Your task to perform on an android device: read, delete, or share a saved page in the chrome app Image 0: 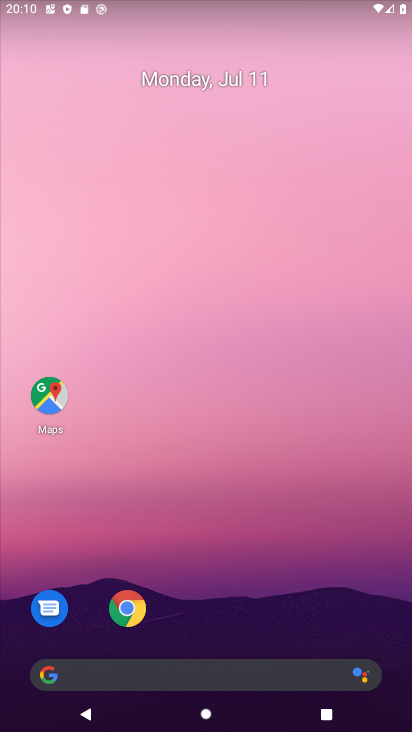
Step 0: click (138, 613)
Your task to perform on an android device: read, delete, or share a saved page in the chrome app Image 1: 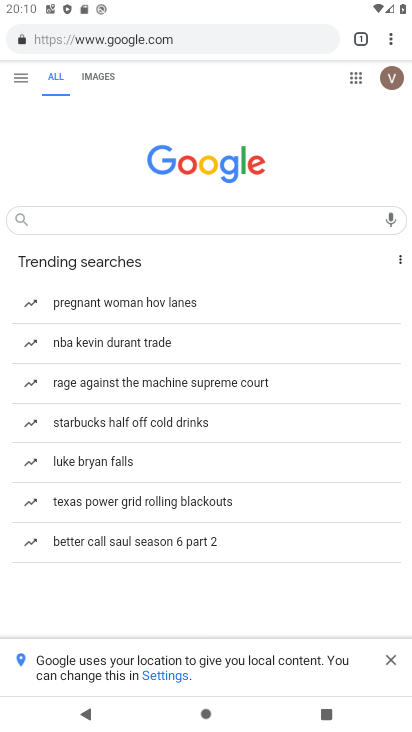
Step 1: click (390, 32)
Your task to perform on an android device: read, delete, or share a saved page in the chrome app Image 2: 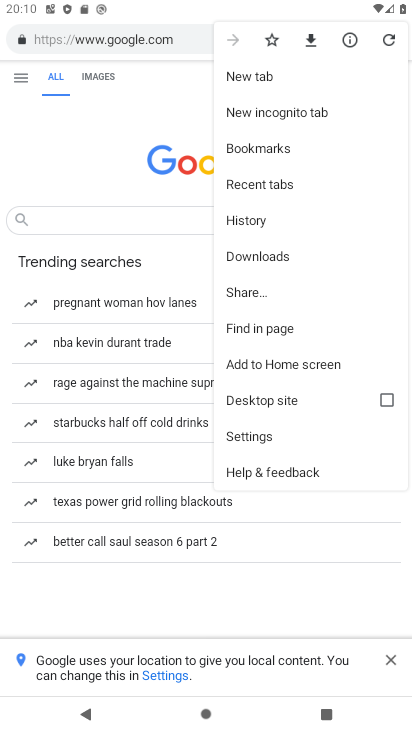
Step 2: click (261, 258)
Your task to perform on an android device: read, delete, or share a saved page in the chrome app Image 3: 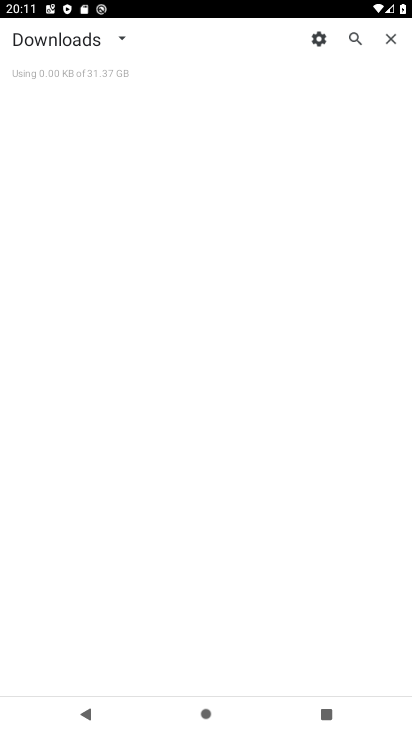
Step 3: task complete